Your task to perform on an android device: Search for vegetarian restaurants on Maps Image 0: 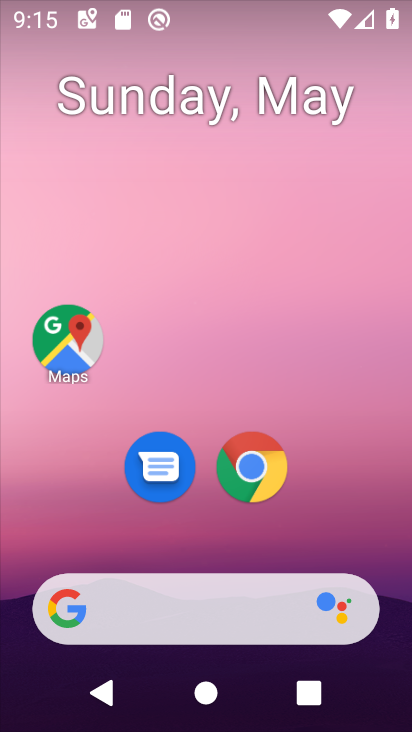
Step 0: drag from (390, 529) to (371, 115)
Your task to perform on an android device: Search for vegetarian restaurants on Maps Image 1: 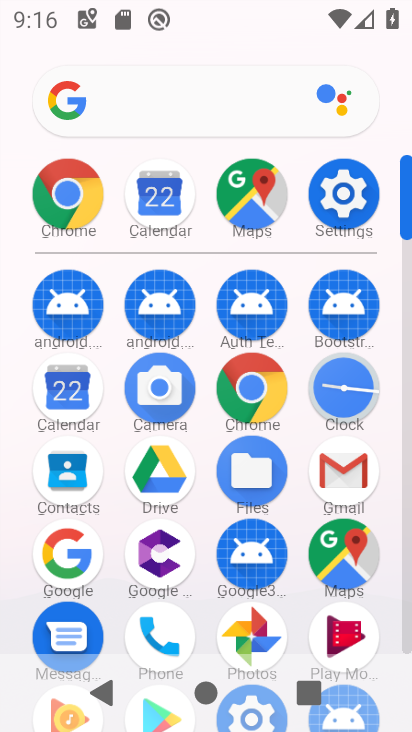
Step 1: click (352, 555)
Your task to perform on an android device: Search for vegetarian restaurants on Maps Image 2: 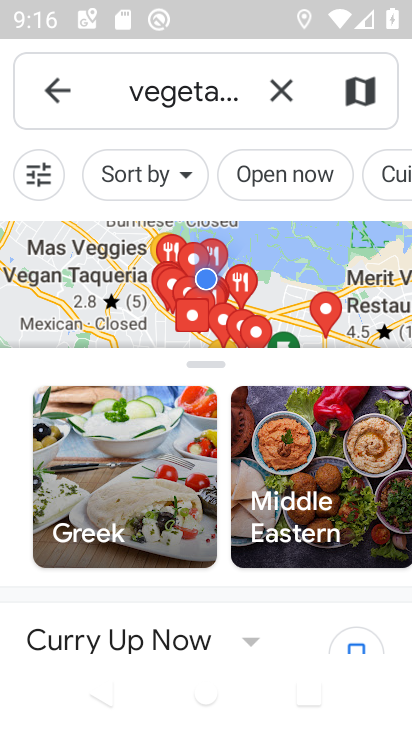
Step 2: task complete